Your task to perform on an android device: add a contact in the contacts app Image 0: 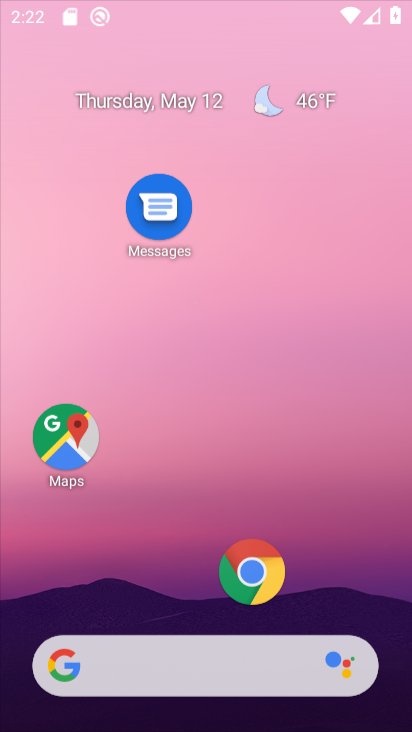
Step 0: click (240, 159)
Your task to perform on an android device: add a contact in the contacts app Image 1: 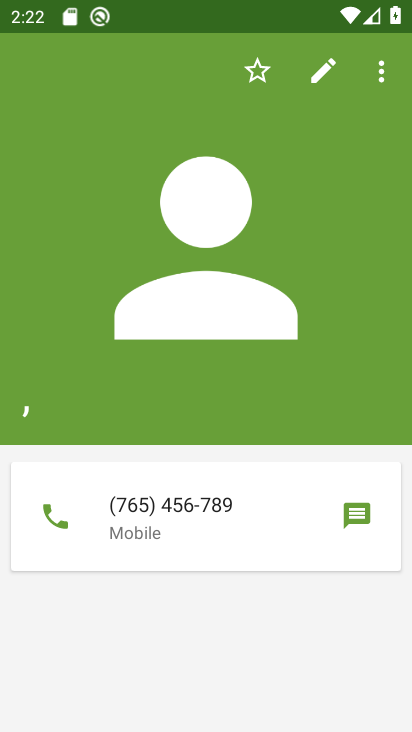
Step 1: press home button
Your task to perform on an android device: add a contact in the contacts app Image 2: 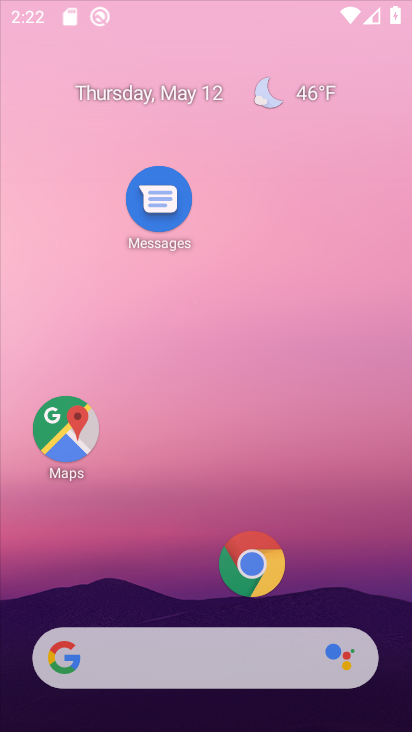
Step 2: drag from (159, 689) to (265, 165)
Your task to perform on an android device: add a contact in the contacts app Image 3: 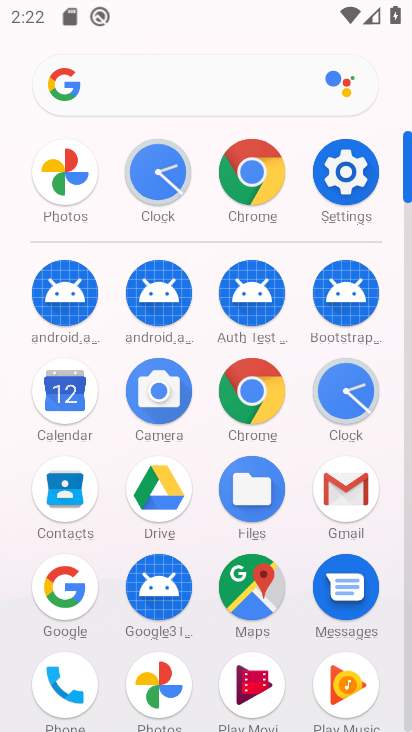
Step 3: drag from (62, 392) to (139, 190)
Your task to perform on an android device: add a contact in the contacts app Image 4: 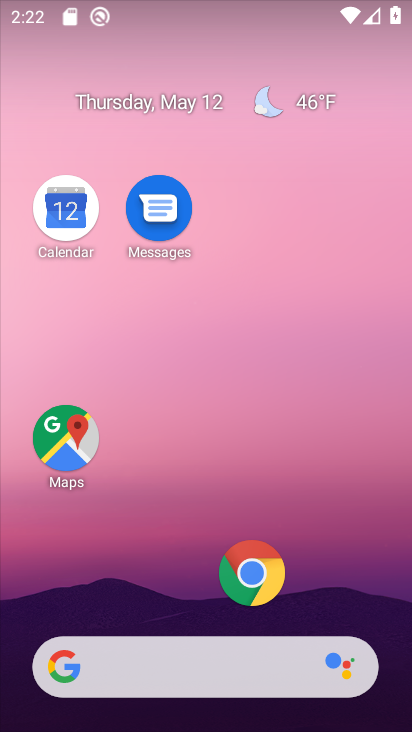
Step 4: drag from (208, 473) to (239, 145)
Your task to perform on an android device: add a contact in the contacts app Image 5: 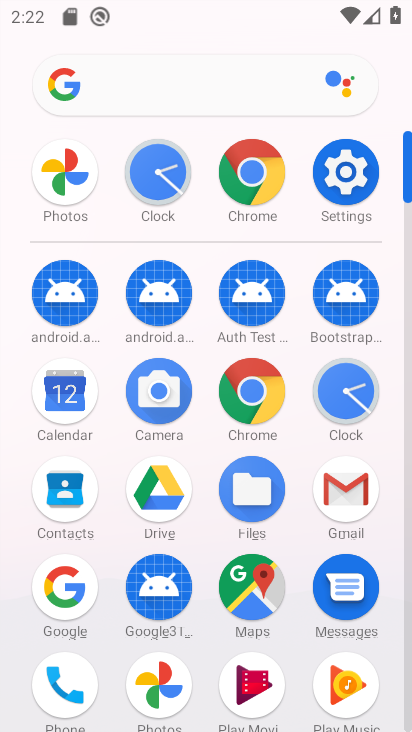
Step 5: click (68, 482)
Your task to perform on an android device: add a contact in the contacts app Image 6: 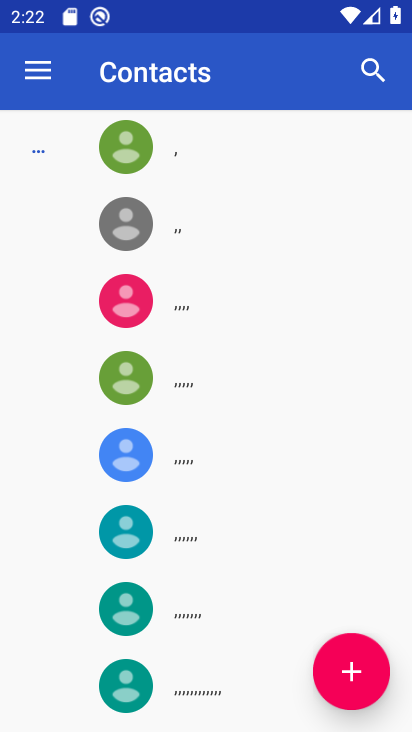
Step 6: click (359, 675)
Your task to perform on an android device: add a contact in the contacts app Image 7: 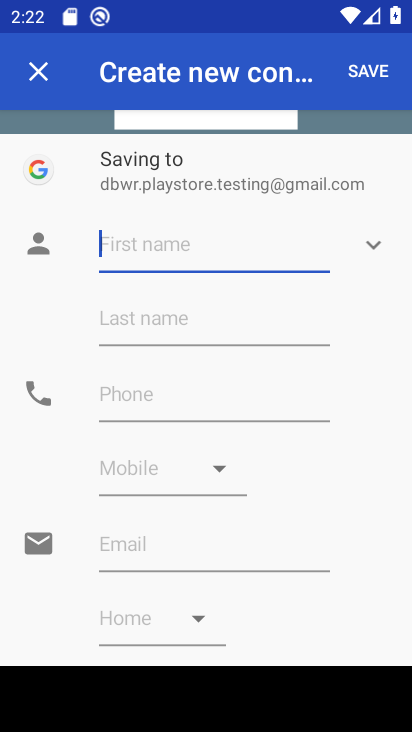
Step 7: type "mjsa"
Your task to perform on an android device: add a contact in the contacts app Image 8: 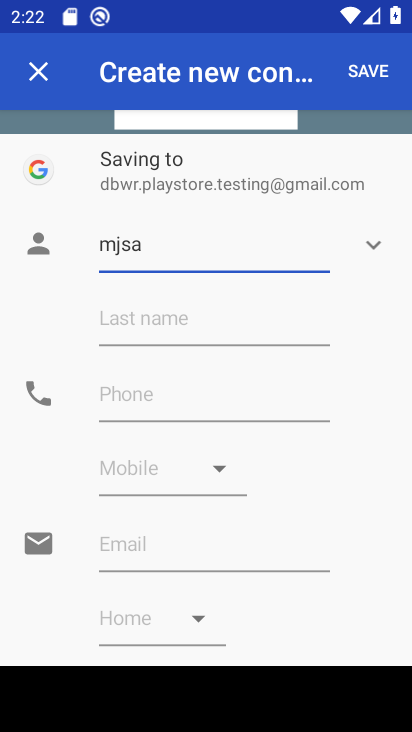
Step 8: click (379, 64)
Your task to perform on an android device: add a contact in the contacts app Image 9: 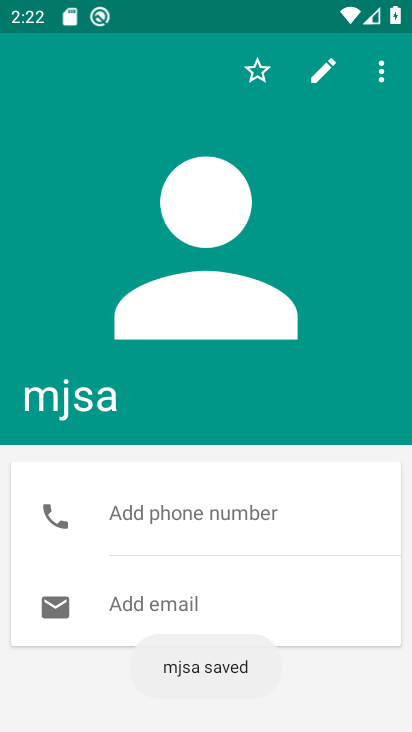
Step 9: task complete